Your task to perform on an android device: toggle priority inbox in the gmail app Image 0: 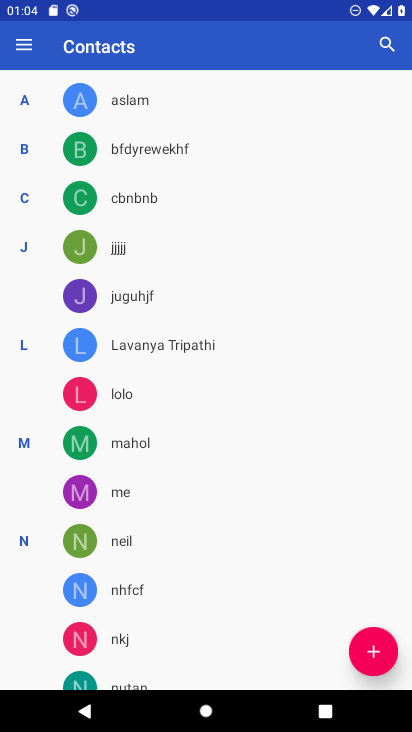
Step 0: press home button
Your task to perform on an android device: toggle priority inbox in the gmail app Image 1: 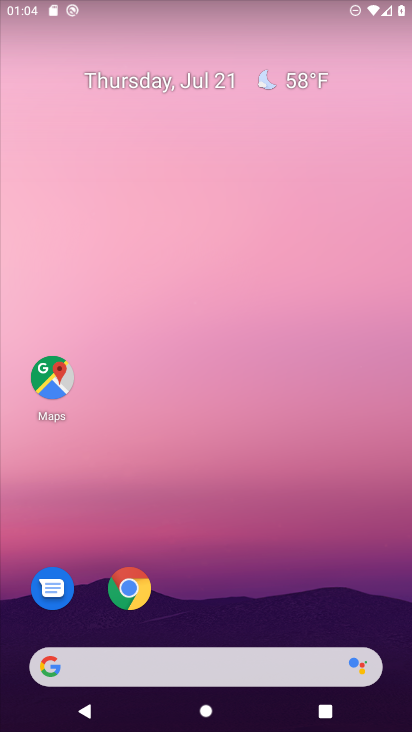
Step 1: drag from (203, 619) to (247, 149)
Your task to perform on an android device: toggle priority inbox in the gmail app Image 2: 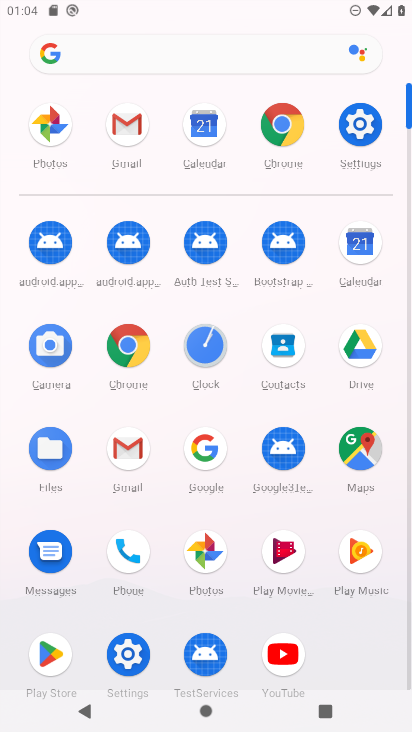
Step 2: click (129, 452)
Your task to perform on an android device: toggle priority inbox in the gmail app Image 3: 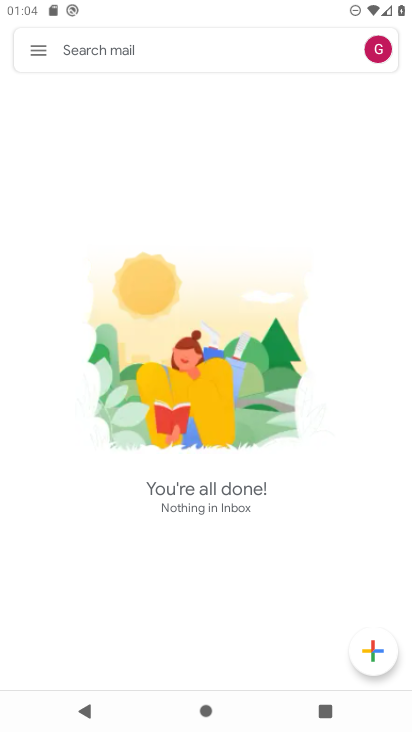
Step 3: click (42, 60)
Your task to perform on an android device: toggle priority inbox in the gmail app Image 4: 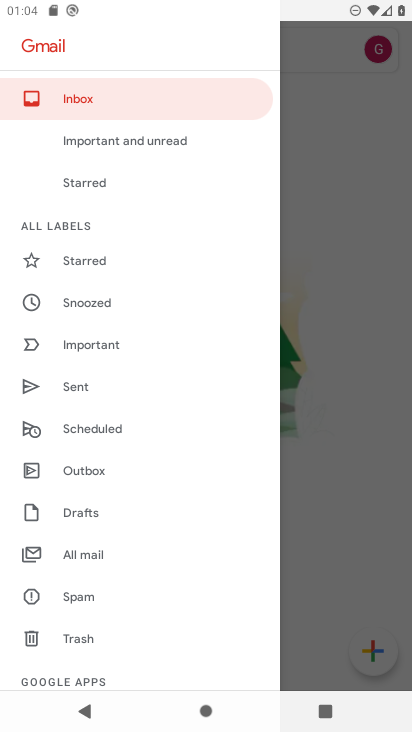
Step 4: drag from (96, 618) to (125, 334)
Your task to perform on an android device: toggle priority inbox in the gmail app Image 5: 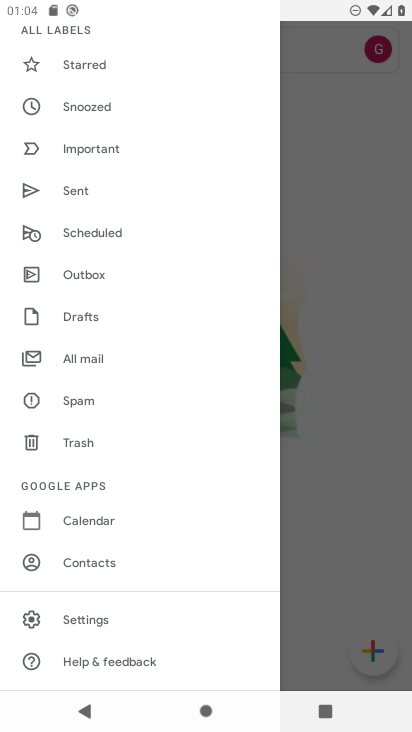
Step 5: click (92, 614)
Your task to perform on an android device: toggle priority inbox in the gmail app Image 6: 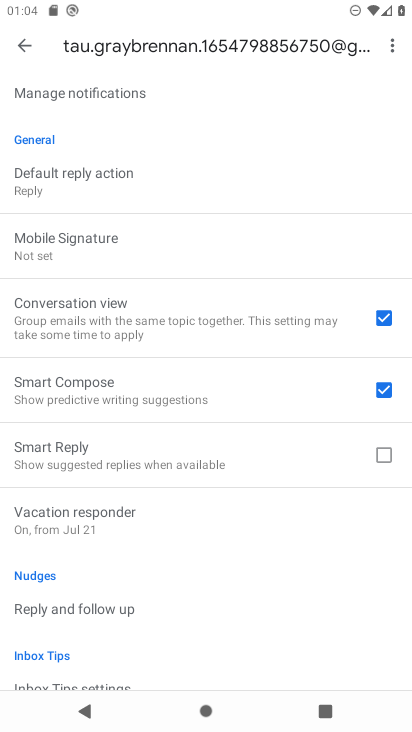
Step 6: drag from (89, 135) to (85, 427)
Your task to perform on an android device: toggle priority inbox in the gmail app Image 7: 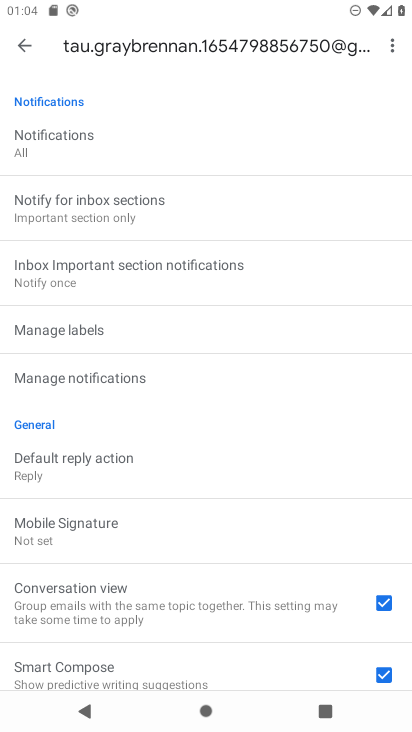
Step 7: drag from (130, 213) to (113, 568)
Your task to perform on an android device: toggle priority inbox in the gmail app Image 8: 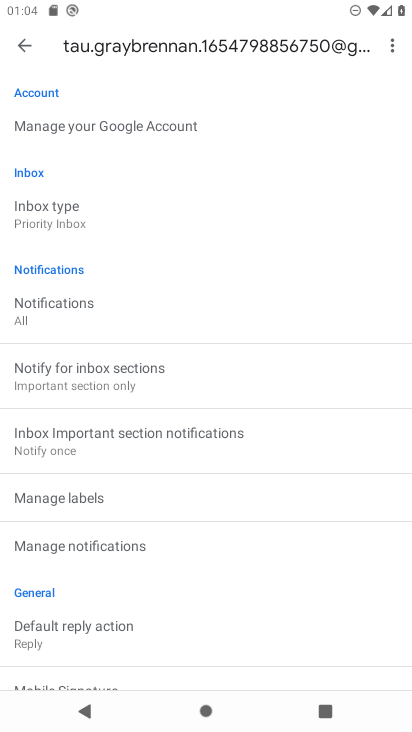
Step 8: click (74, 220)
Your task to perform on an android device: toggle priority inbox in the gmail app Image 9: 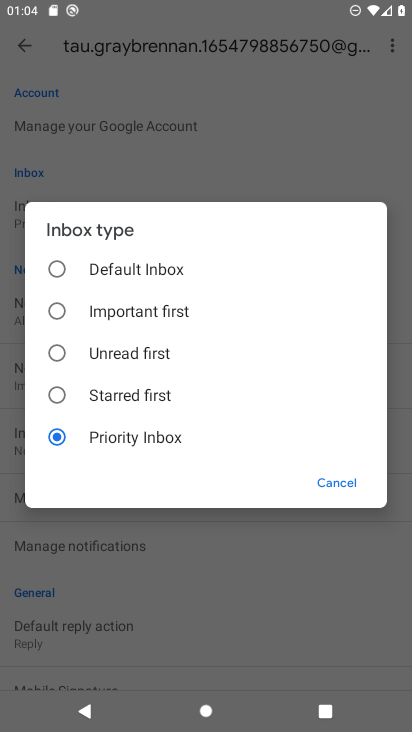
Step 9: click (87, 267)
Your task to perform on an android device: toggle priority inbox in the gmail app Image 10: 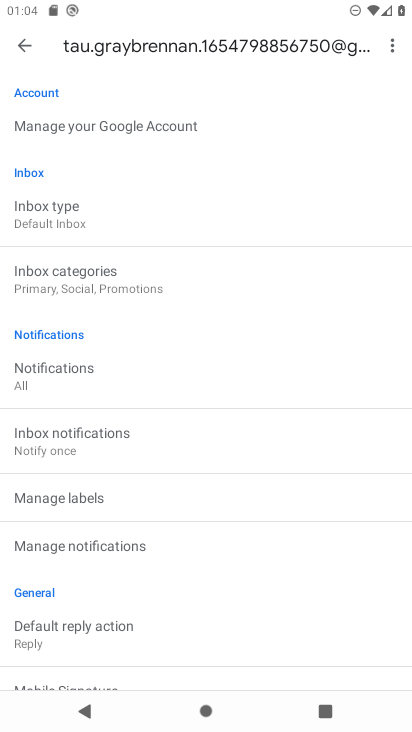
Step 10: task complete